Your task to perform on an android device: turn off airplane mode Image 0: 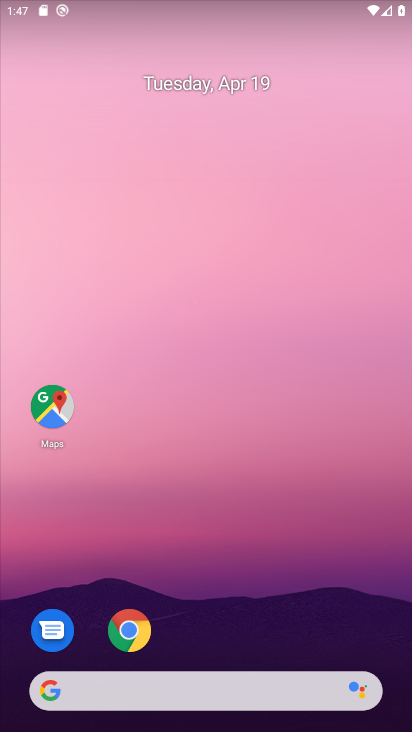
Step 0: drag from (268, 610) to (264, 59)
Your task to perform on an android device: turn off airplane mode Image 1: 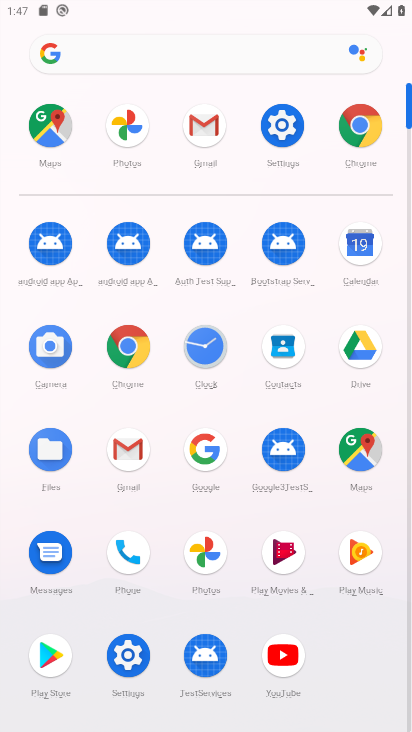
Step 1: click (130, 649)
Your task to perform on an android device: turn off airplane mode Image 2: 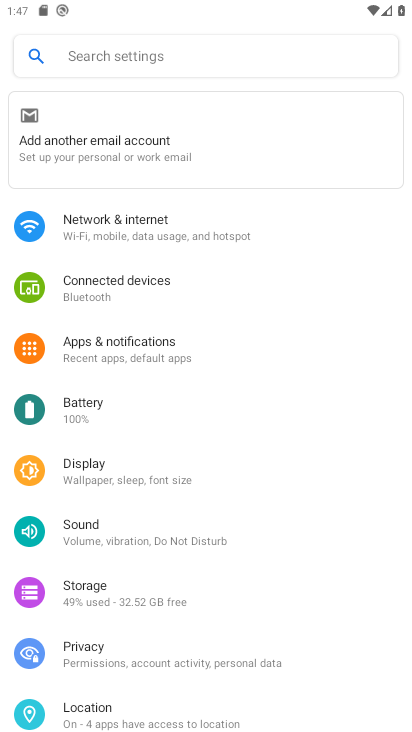
Step 2: click (164, 235)
Your task to perform on an android device: turn off airplane mode Image 3: 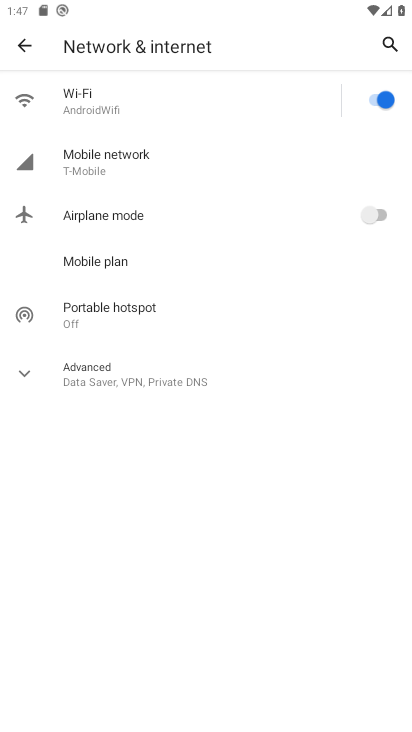
Step 3: task complete